Your task to perform on an android device: Is it going to rain this weekend? Image 0: 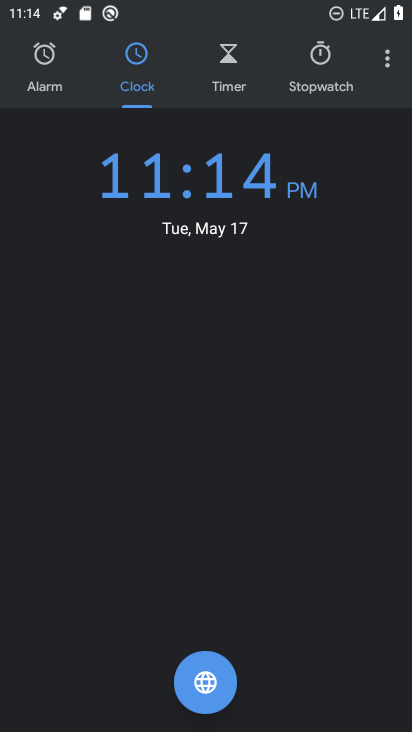
Step 0: press back button
Your task to perform on an android device: Is it going to rain this weekend? Image 1: 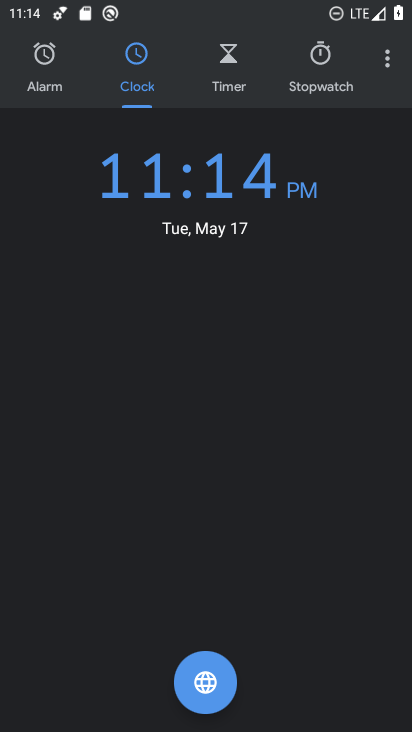
Step 1: press back button
Your task to perform on an android device: Is it going to rain this weekend? Image 2: 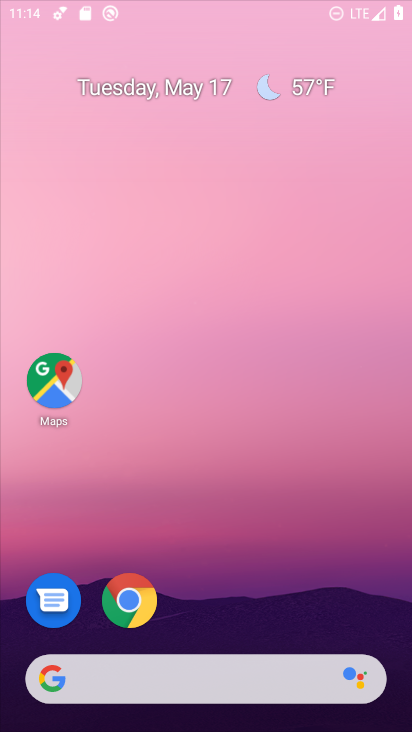
Step 2: press back button
Your task to perform on an android device: Is it going to rain this weekend? Image 3: 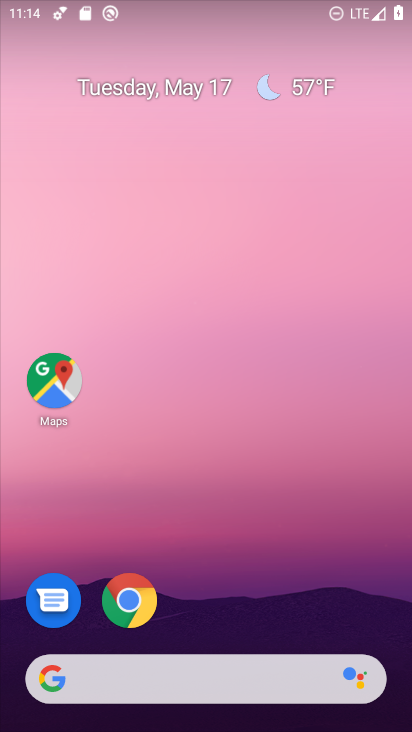
Step 3: press back button
Your task to perform on an android device: Is it going to rain this weekend? Image 4: 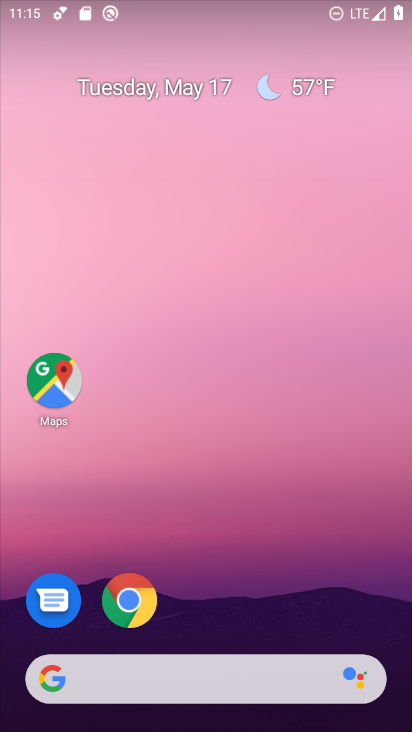
Step 4: press back button
Your task to perform on an android device: Is it going to rain this weekend? Image 5: 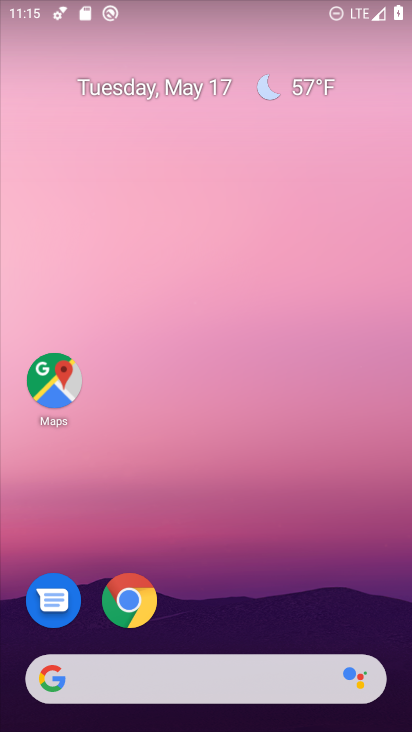
Step 5: drag from (7, 207) to (402, 352)
Your task to perform on an android device: Is it going to rain this weekend? Image 6: 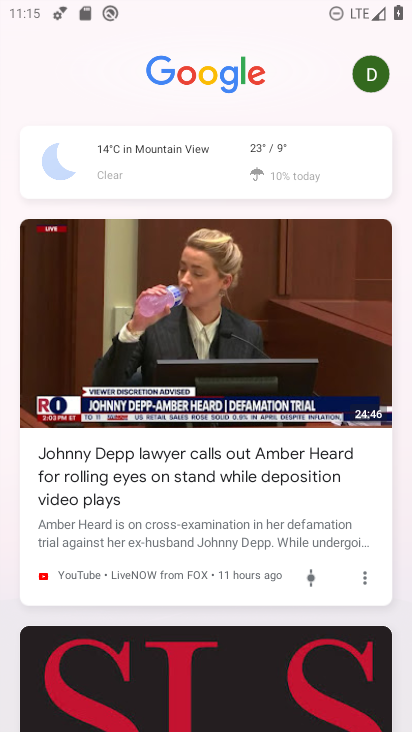
Step 6: click (167, 164)
Your task to perform on an android device: Is it going to rain this weekend? Image 7: 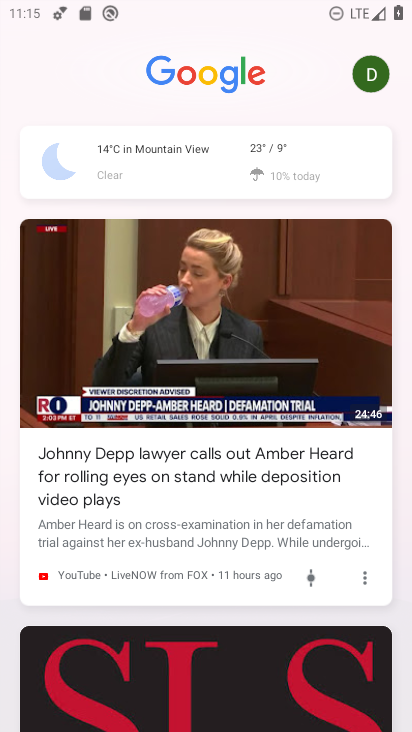
Step 7: click (167, 164)
Your task to perform on an android device: Is it going to rain this weekend? Image 8: 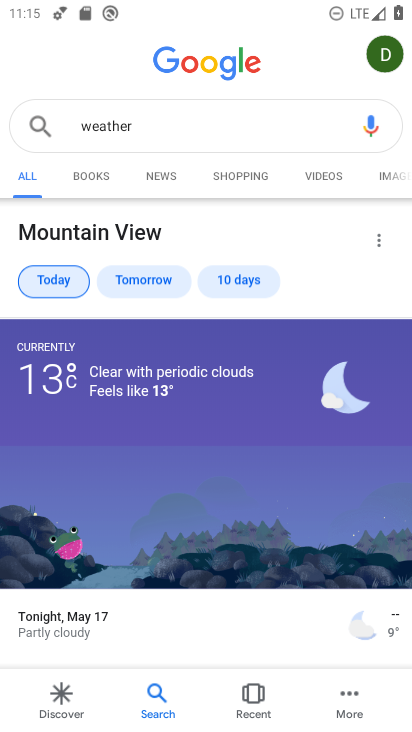
Step 8: click (151, 129)
Your task to perform on an android device: Is it going to rain this weekend? Image 9: 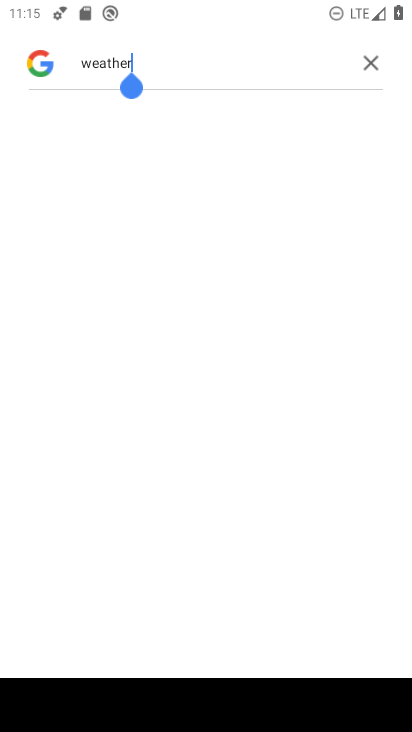
Step 9: click (150, 121)
Your task to perform on an android device: Is it going to rain this weekend? Image 10: 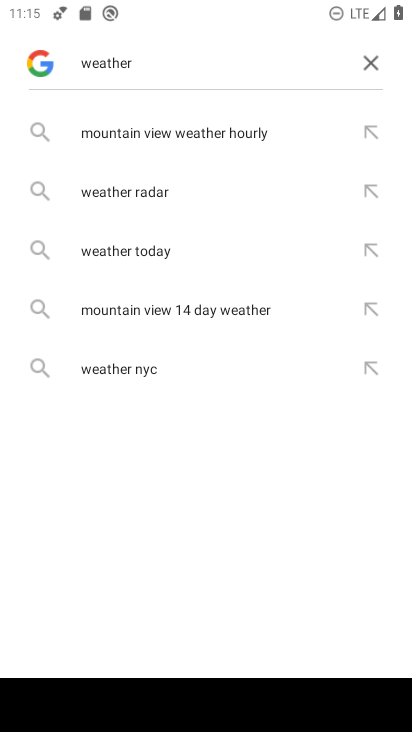
Step 10: type " weekend"
Your task to perform on an android device: Is it going to rain this weekend? Image 11: 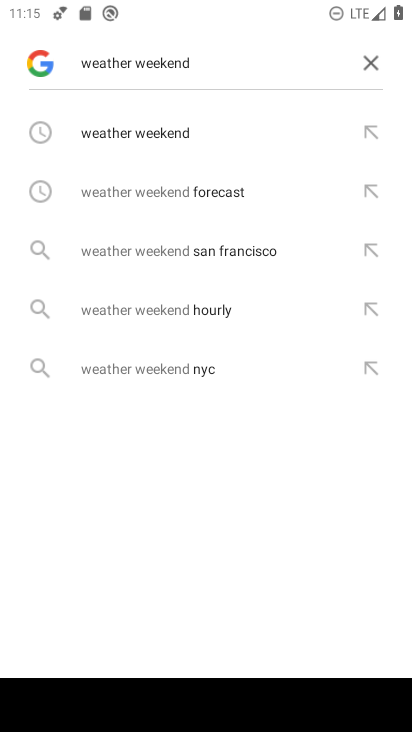
Step 11: click (169, 143)
Your task to perform on an android device: Is it going to rain this weekend? Image 12: 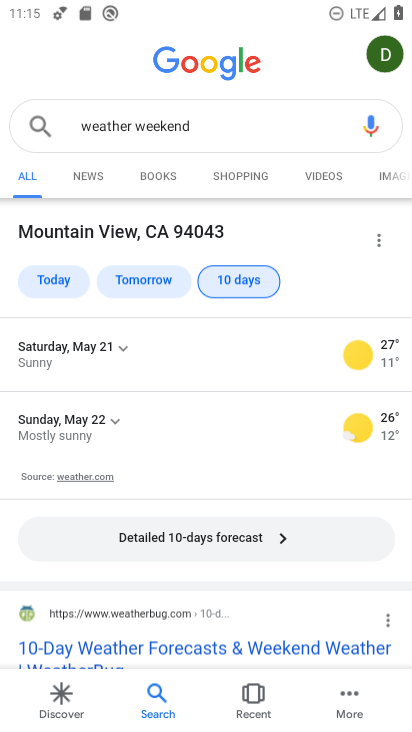
Step 12: task complete